Your task to perform on an android device: turn off notifications settings in the gmail app Image 0: 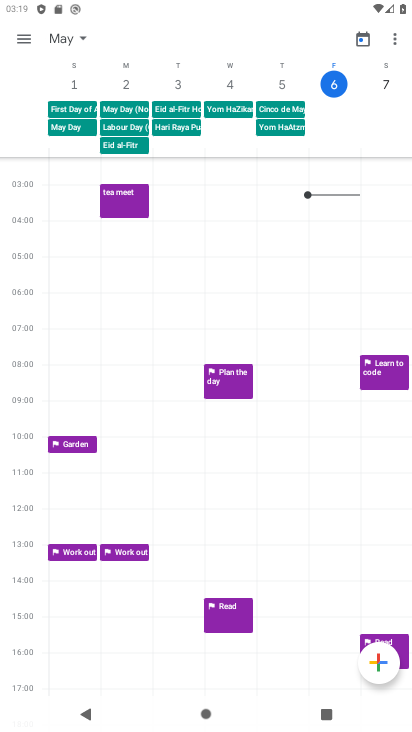
Step 0: press home button
Your task to perform on an android device: turn off notifications settings in the gmail app Image 1: 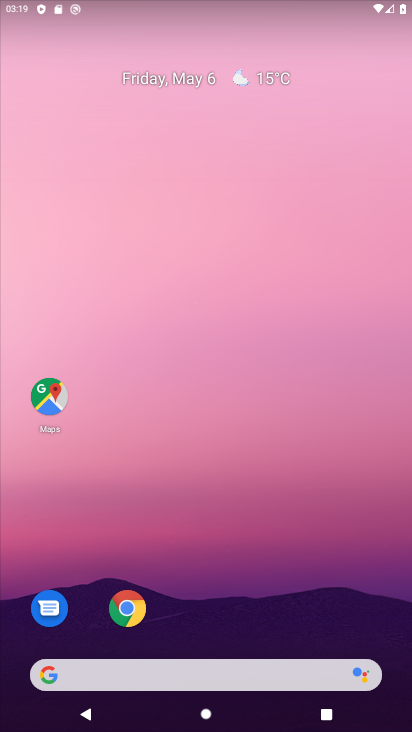
Step 1: drag from (197, 661) to (201, 196)
Your task to perform on an android device: turn off notifications settings in the gmail app Image 2: 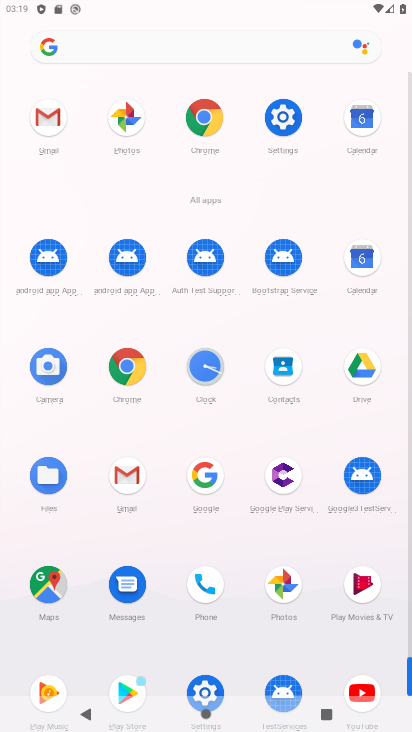
Step 2: click (131, 491)
Your task to perform on an android device: turn off notifications settings in the gmail app Image 3: 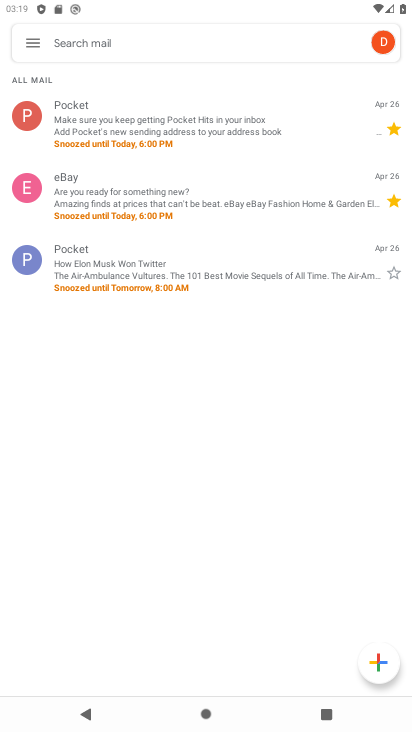
Step 3: click (27, 37)
Your task to perform on an android device: turn off notifications settings in the gmail app Image 4: 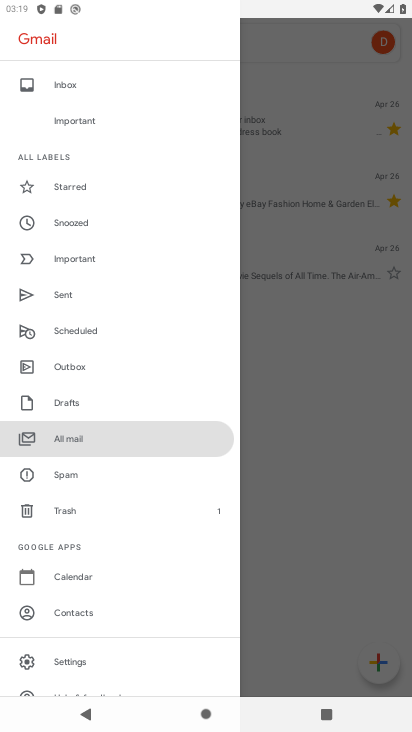
Step 4: click (83, 666)
Your task to perform on an android device: turn off notifications settings in the gmail app Image 5: 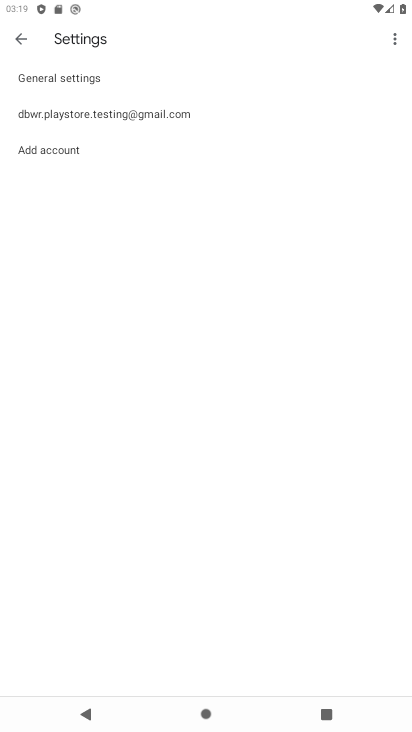
Step 5: click (143, 116)
Your task to perform on an android device: turn off notifications settings in the gmail app Image 6: 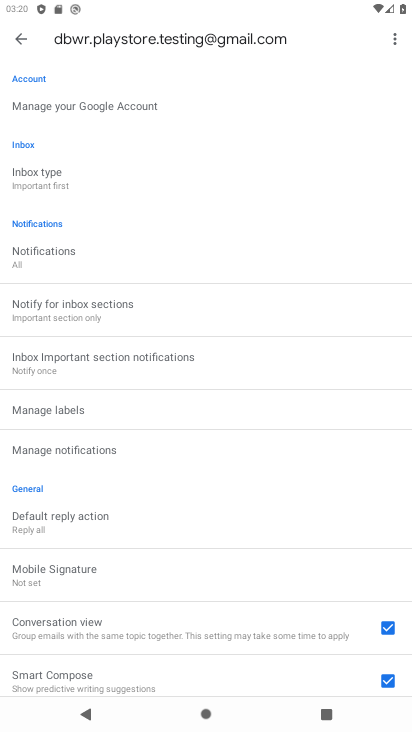
Step 6: click (107, 443)
Your task to perform on an android device: turn off notifications settings in the gmail app Image 7: 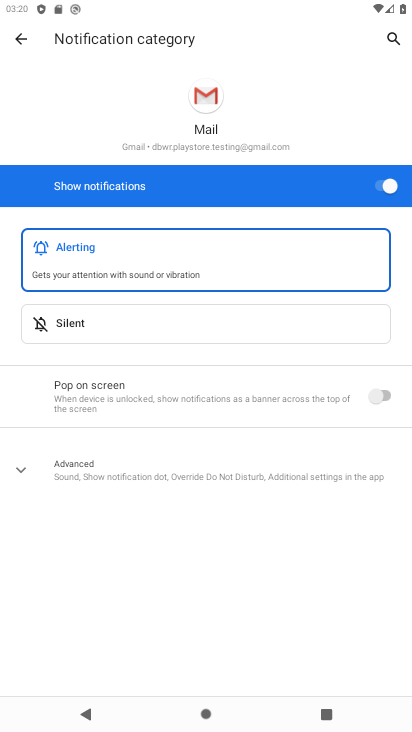
Step 7: click (375, 189)
Your task to perform on an android device: turn off notifications settings in the gmail app Image 8: 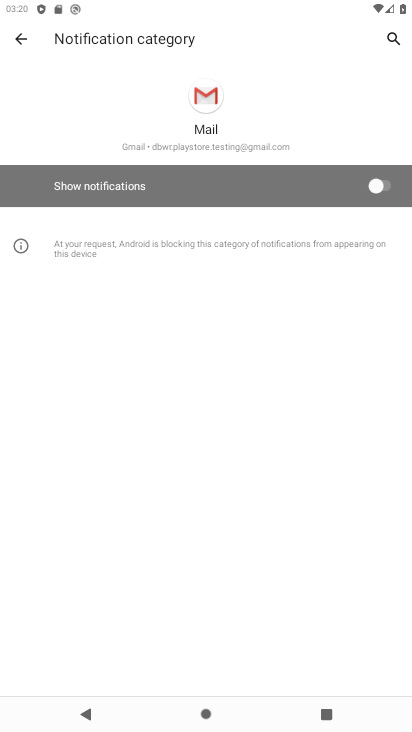
Step 8: task complete